Your task to perform on an android device: Open display settings Image 0: 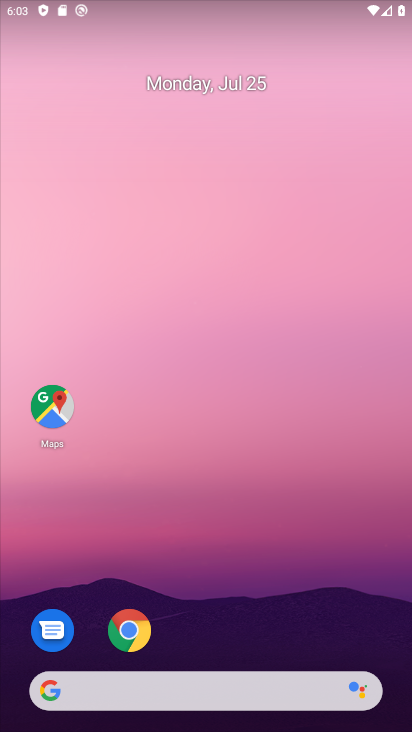
Step 0: drag from (199, 696) to (234, 208)
Your task to perform on an android device: Open display settings Image 1: 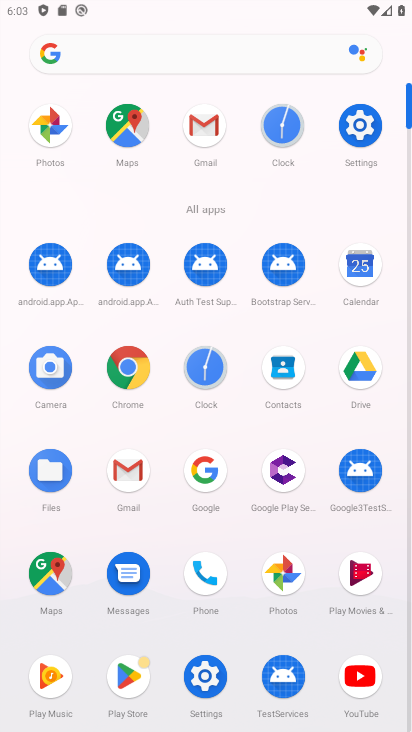
Step 1: click (358, 124)
Your task to perform on an android device: Open display settings Image 2: 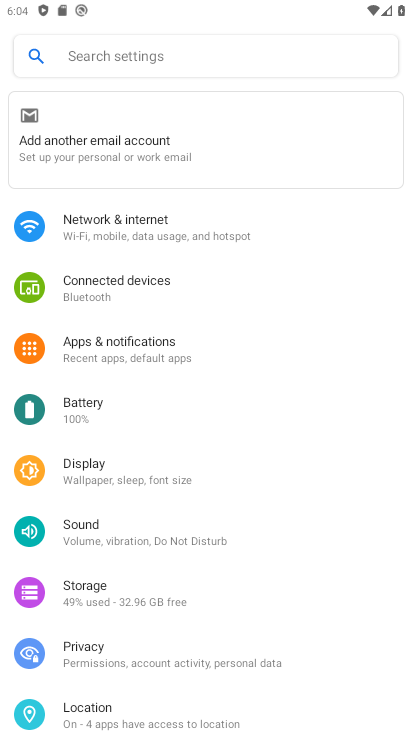
Step 2: click (97, 474)
Your task to perform on an android device: Open display settings Image 3: 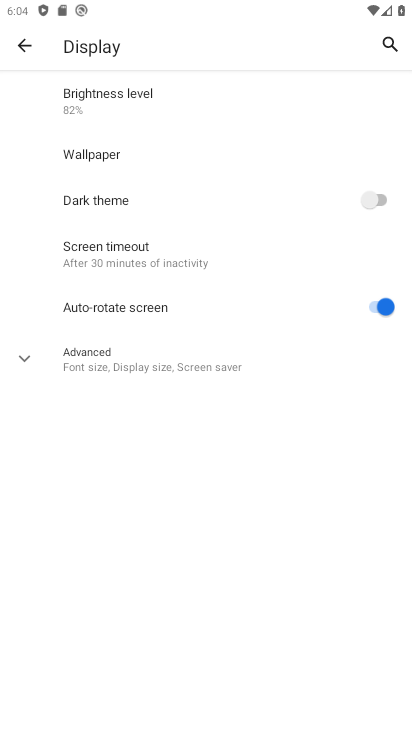
Step 3: task complete